Your task to perform on an android device: check storage Image 0: 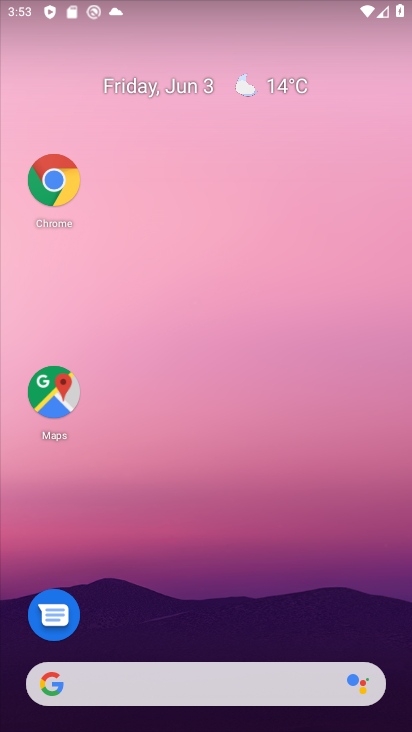
Step 0: press home button
Your task to perform on an android device: check storage Image 1: 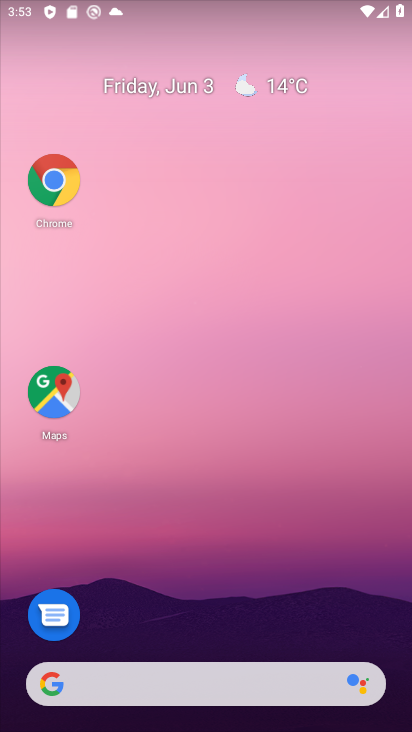
Step 1: drag from (164, 722) to (163, 58)
Your task to perform on an android device: check storage Image 2: 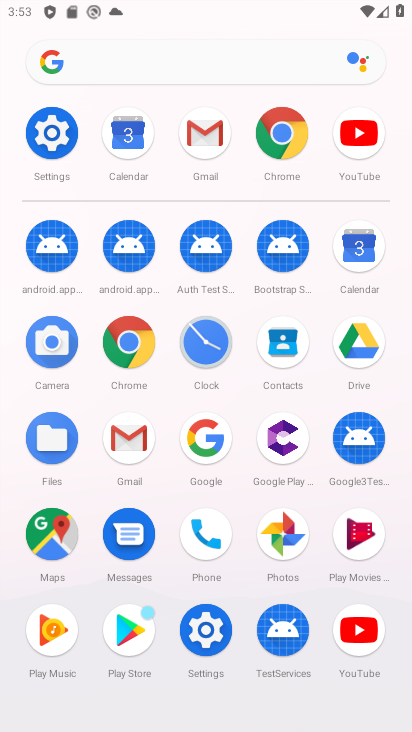
Step 2: click (61, 127)
Your task to perform on an android device: check storage Image 3: 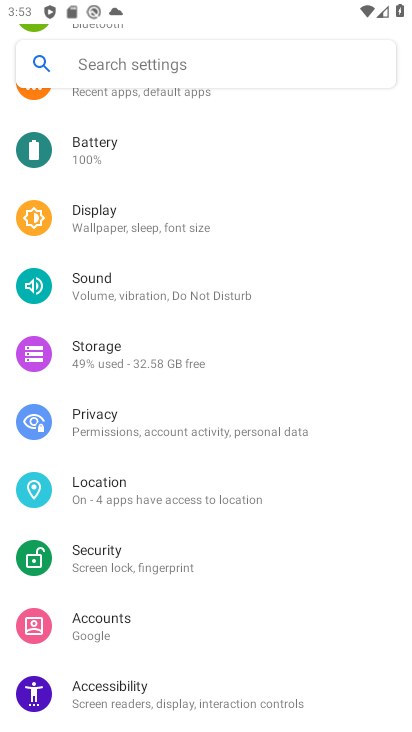
Step 3: drag from (262, 596) to (235, 165)
Your task to perform on an android device: check storage Image 4: 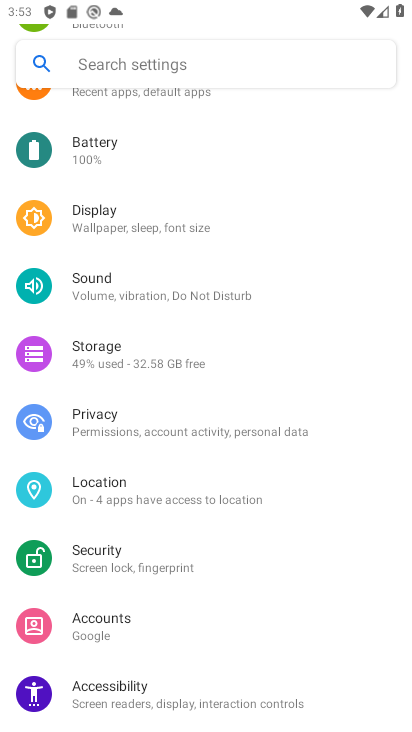
Step 4: click (149, 354)
Your task to perform on an android device: check storage Image 5: 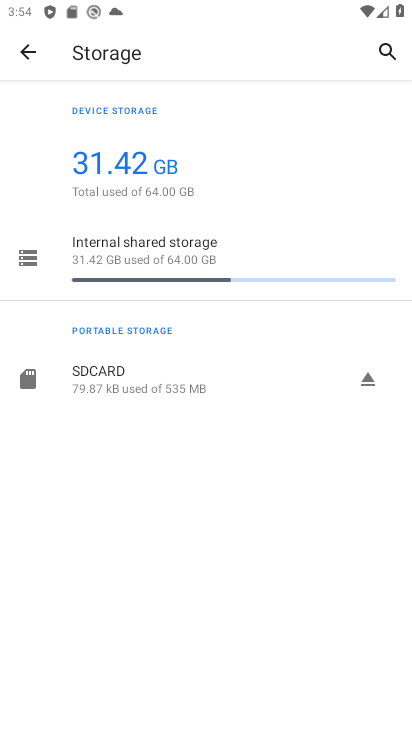
Step 5: task complete